Your task to perform on an android device: clear history in the chrome app Image 0: 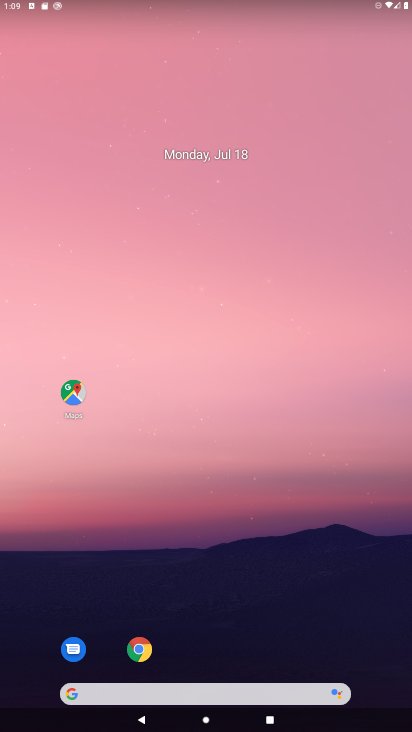
Step 0: click (140, 655)
Your task to perform on an android device: clear history in the chrome app Image 1: 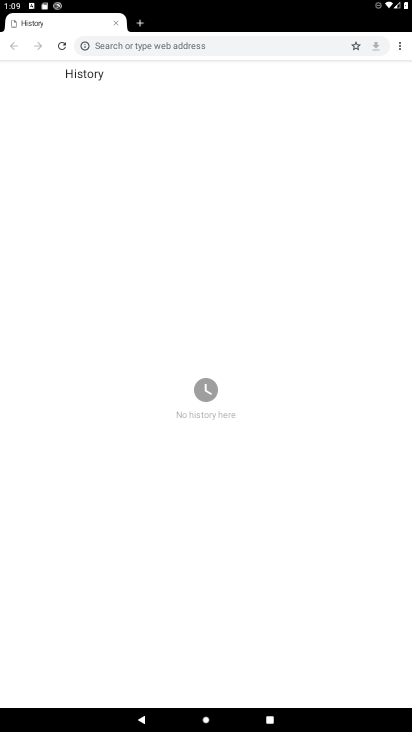
Step 1: task complete